Your task to perform on an android device: Go to battery settings Image 0: 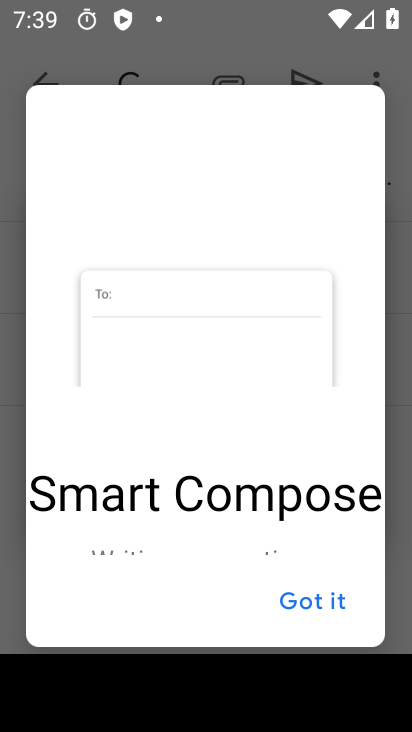
Step 0: press home button
Your task to perform on an android device: Go to battery settings Image 1: 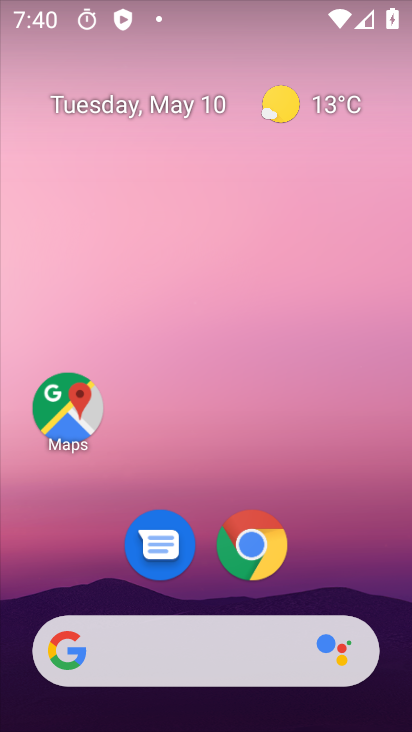
Step 1: drag from (200, 584) to (194, 121)
Your task to perform on an android device: Go to battery settings Image 2: 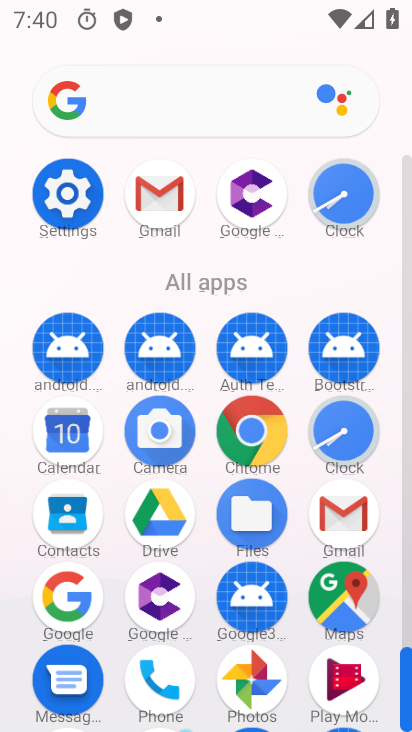
Step 2: click (66, 187)
Your task to perform on an android device: Go to battery settings Image 3: 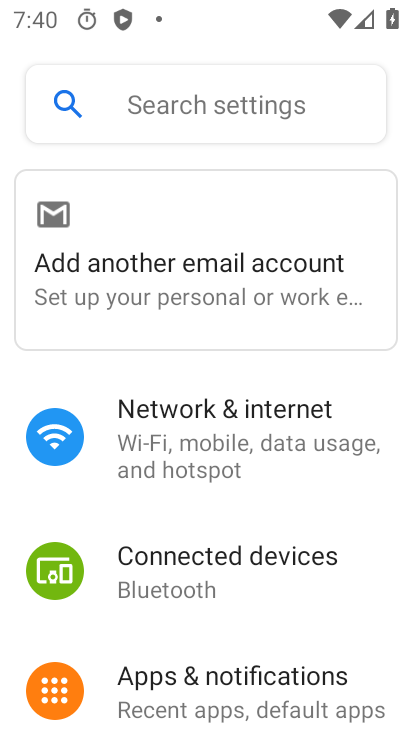
Step 3: drag from (200, 634) to (208, 260)
Your task to perform on an android device: Go to battery settings Image 4: 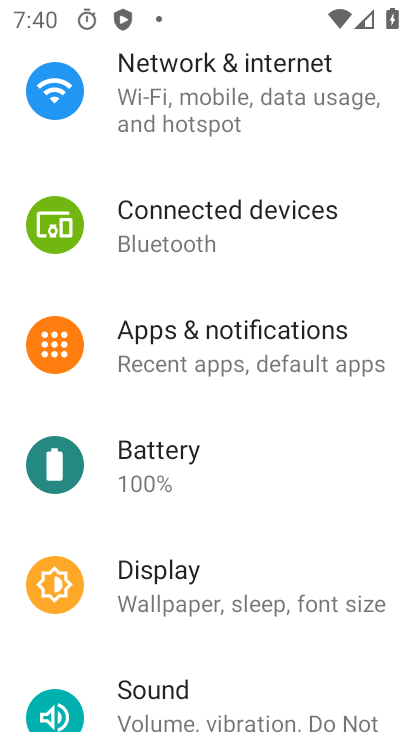
Step 4: click (181, 466)
Your task to perform on an android device: Go to battery settings Image 5: 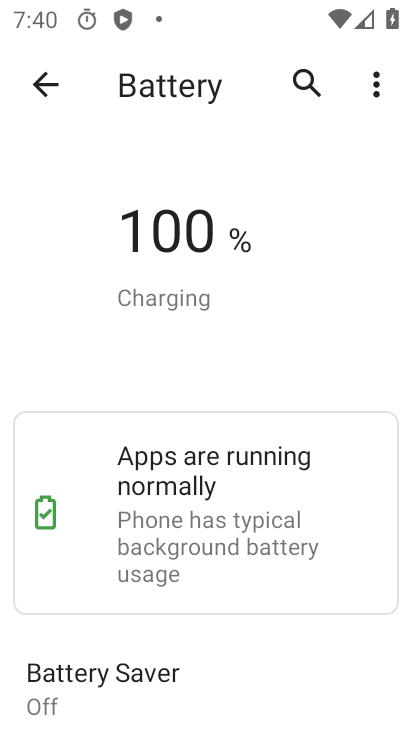
Step 5: task complete